Your task to perform on an android device: Open maps Image 0: 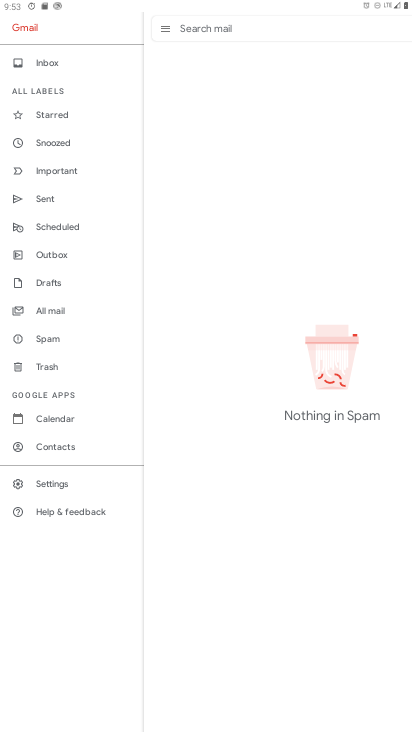
Step 0: press home button
Your task to perform on an android device: Open maps Image 1: 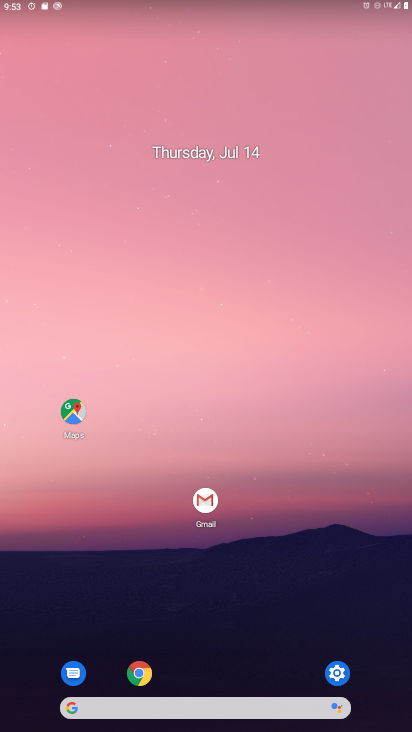
Step 1: click (84, 399)
Your task to perform on an android device: Open maps Image 2: 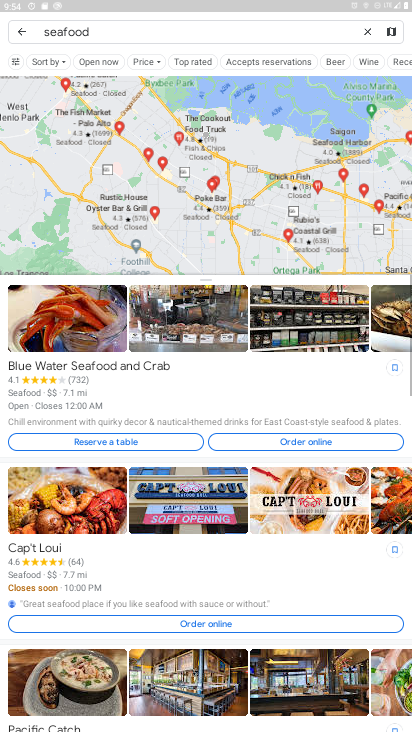
Step 2: click (16, 30)
Your task to perform on an android device: Open maps Image 3: 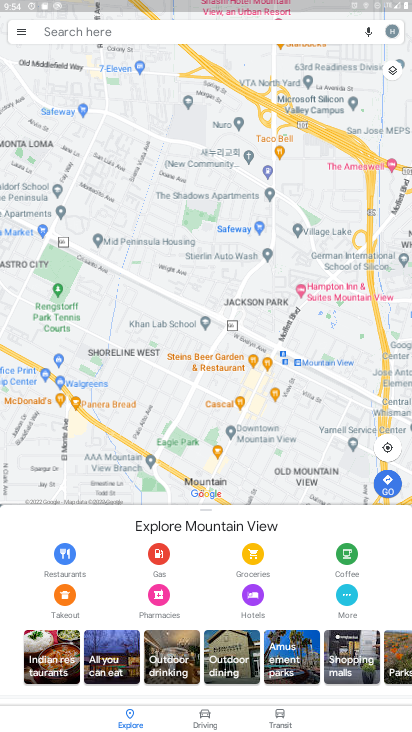
Step 3: task complete